Your task to perform on an android device: turn off priority inbox in the gmail app Image 0: 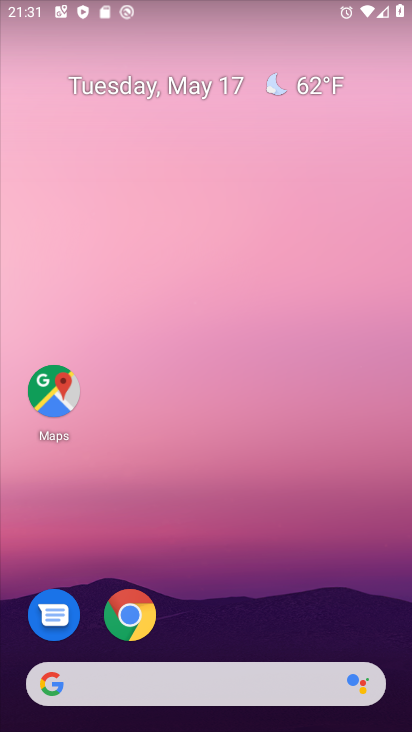
Step 0: drag from (384, 609) to (157, 10)
Your task to perform on an android device: turn off priority inbox in the gmail app Image 1: 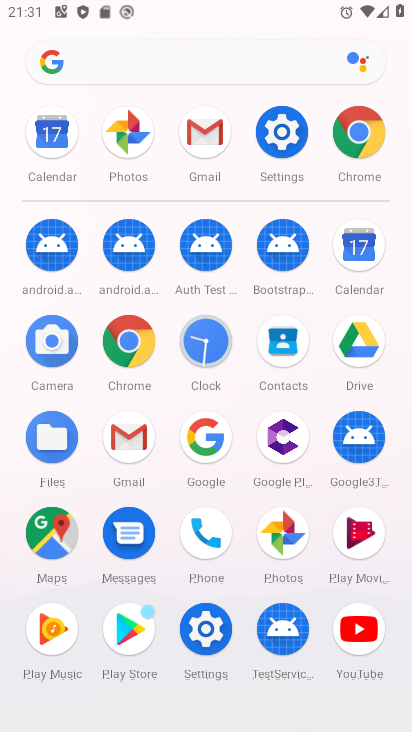
Step 1: click (187, 145)
Your task to perform on an android device: turn off priority inbox in the gmail app Image 2: 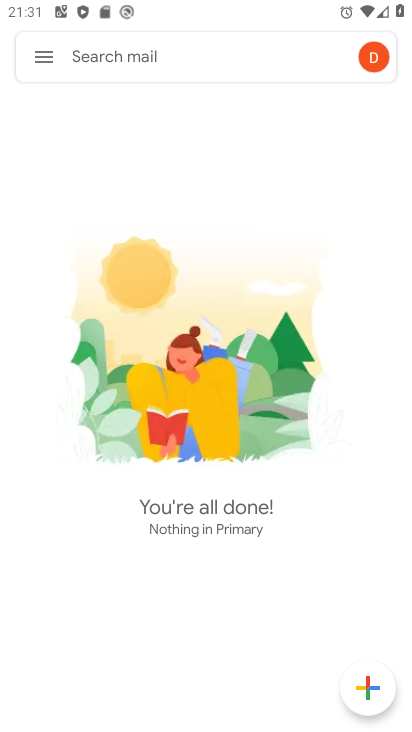
Step 2: click (41, 52)
Your task to perform on an android device: turn off priority inbox in the gmail app Image 3: 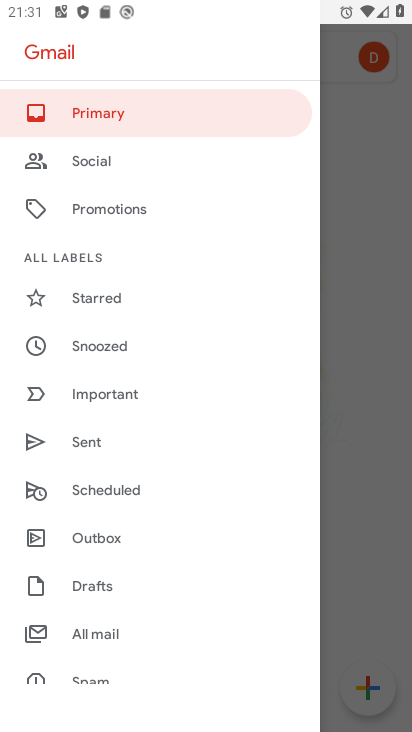
Step 3: drag from (98, 642) to (129, 105)
Your task to perform on an android device: turn off priority inbox in the gmail app Image 4: 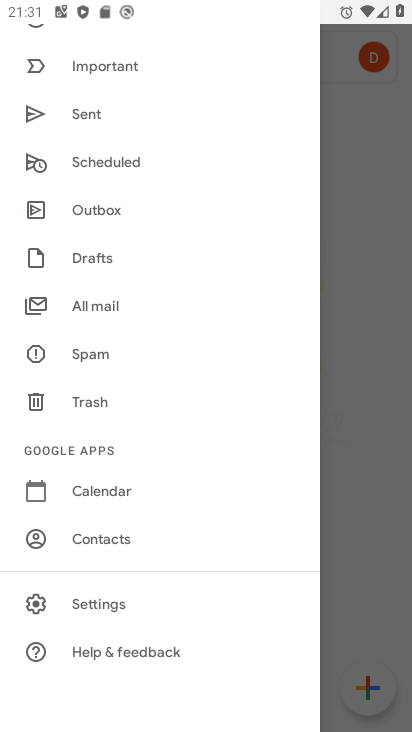
Step 4: click (130, 616)
Your task to perform on an android device: turn off priority inbox in the gmail app Image 5: 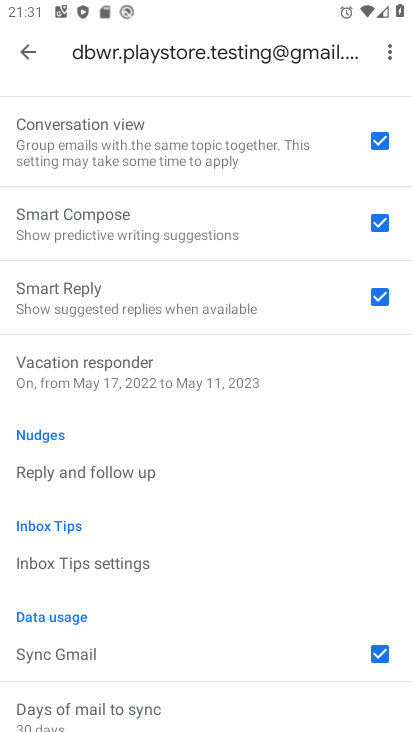
Step 5: drag from (259, 257) to (47, 729)
Your task to perform on an android device: turn off priority inbox in the gmail app Image 6: 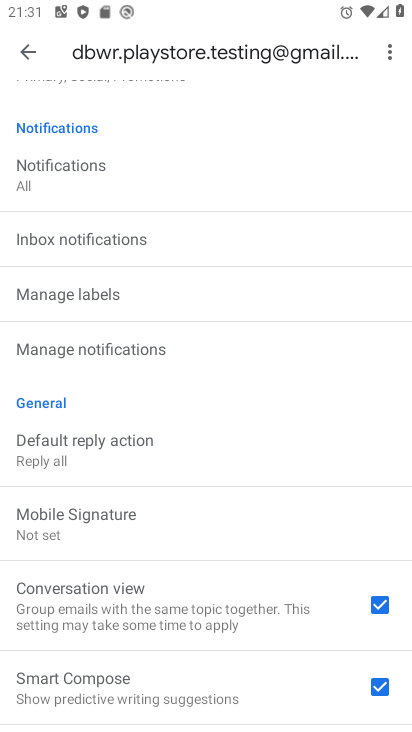
Step 6: drag from (223, 188) to (104, 676)
Your task to perform on an android device: turn off priority inbox in the gmail app Image 7: 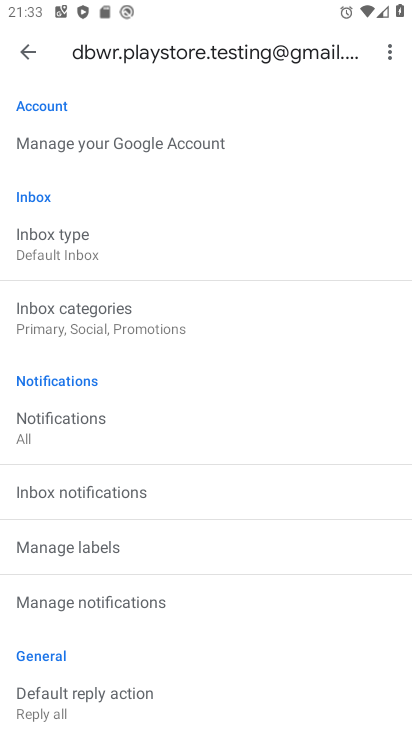
Step 7: click (62, 247)
Your task to perform on an android device: turn off priority inbox in the gmail app Image 8: 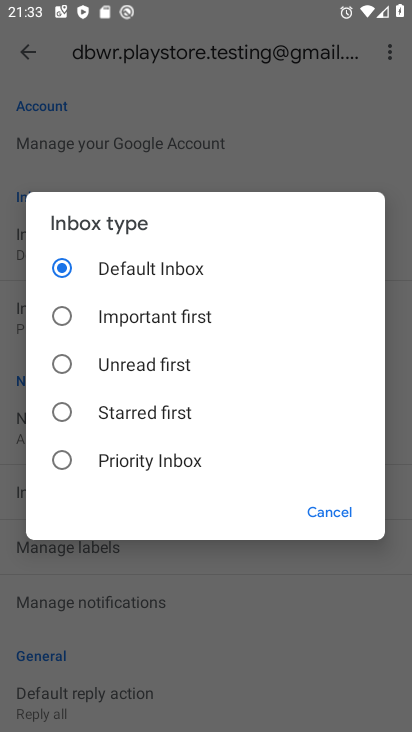
Step 8: click (60, 457)
Your task to perform on an android device: turn off priority inbox in the gmail app Image 9: 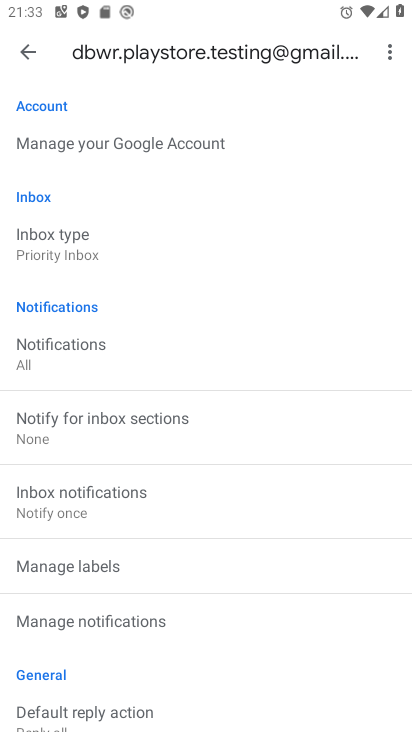
Step 9: task complete